Your task to perform on an android device: turn on data saver in the chrome app Image 0: 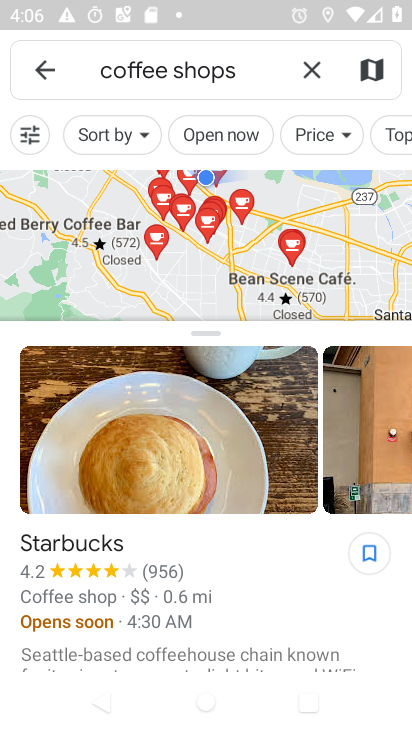
Step 0: press home button
Your task to perform on an android device: turn on data saver in the chrome app Image 1: 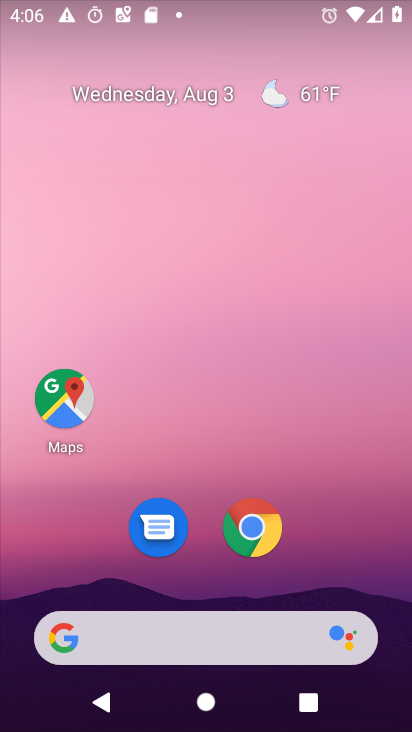
Step 1: drag from (302, 526) to (314, 52)
Your task to perform on an android device: turn on data saver in the chrome app Image 2: 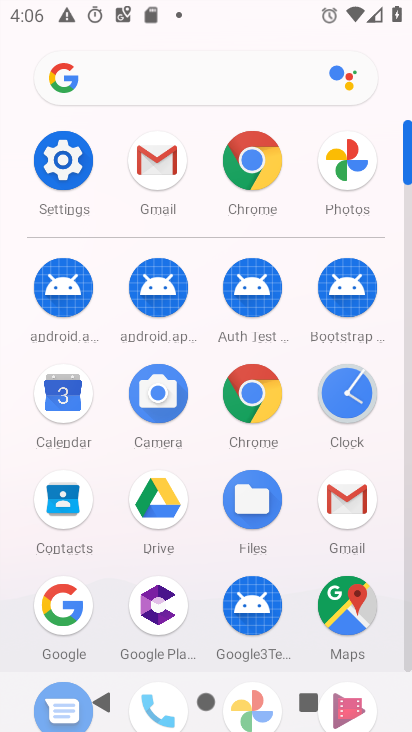
Step 2: click (248, 394)
Your task to perform on an android device: turn on data saver in the chrome app Image 3: 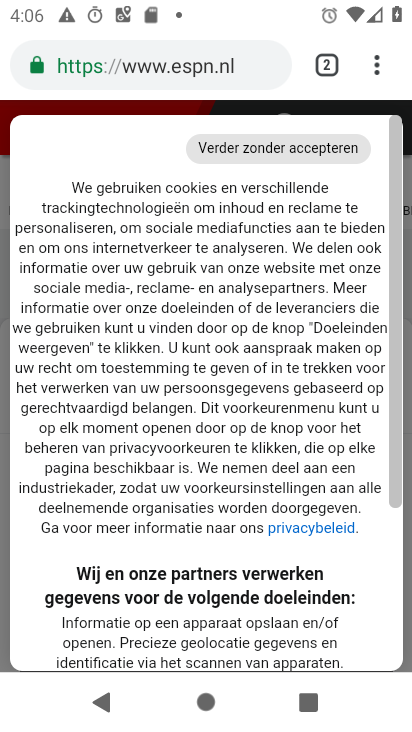
Step 3: drag from (382, 56) to (175, 578)
Your task to perform on an android device: turn on data saver in the chrome app Image 4: 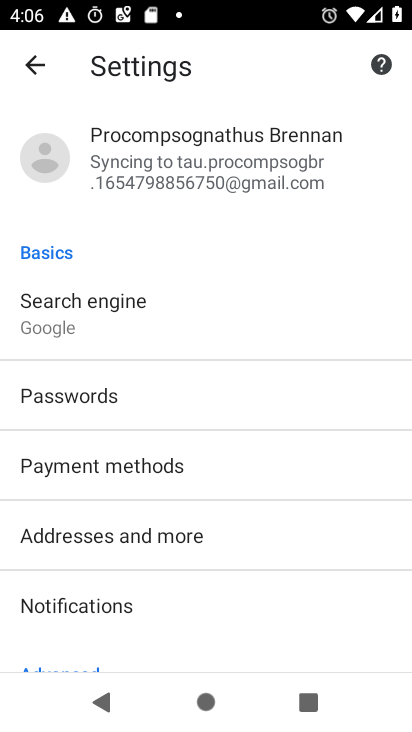
Step 4: drag from (276, 583) to (310, 183)
Your task to perform on an android device: turn on data saver in the chrome app Image 5: 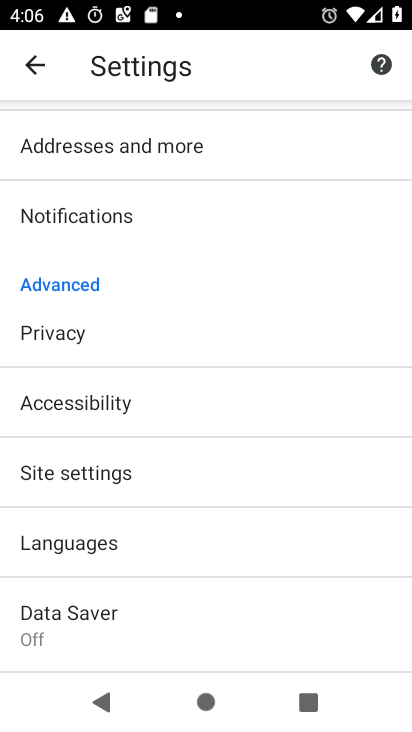
Step 5: click (68, 629)
Your task to perform on an android device: turn on data saver in the chrome app Image 6: 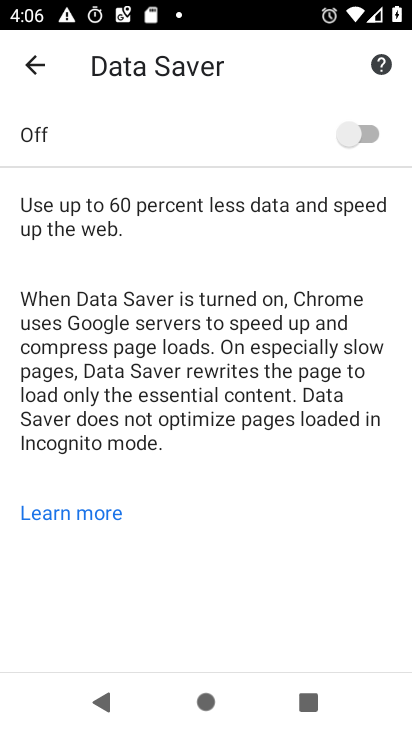
Step 6: click (356, 126)
Your task to perform on an android device: turn on data saver in the chrome app Image 7: 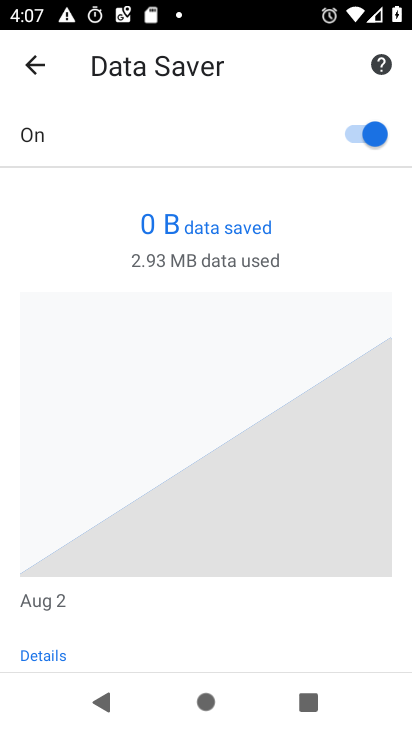
Step 7: task complete